Your task to perform on an android device: Turn off the flashlight Image 0: 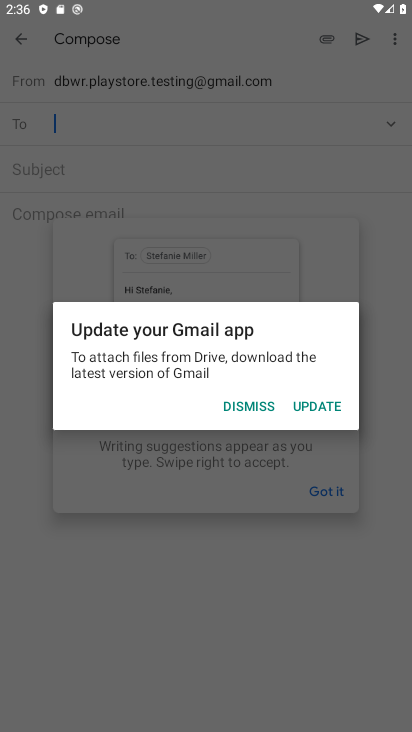
Step 0: press home button
Your task to perform on an android device: Turn off the flashlight Image 1: 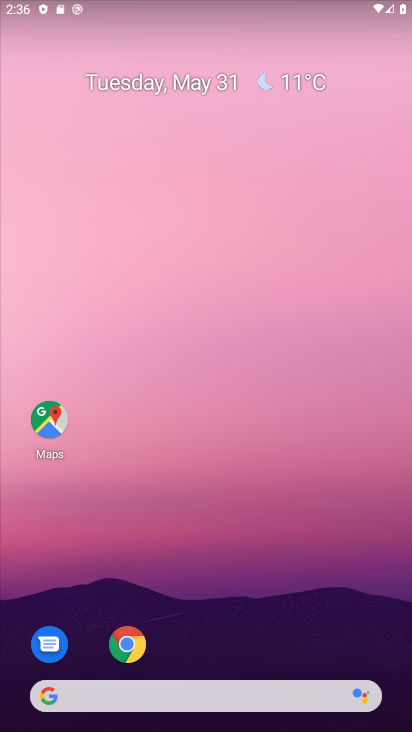
Step 1: drag from (199, 625) to (191, 250)
Your task to perform on an android device: Turn off the flashlight Image 2: 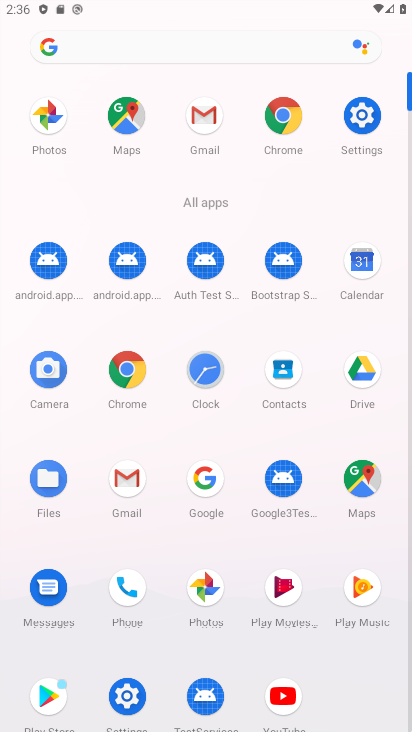
Step 2: click (360, 122)
Your task to perform on an android device: Turn off the flashlight Image 3: 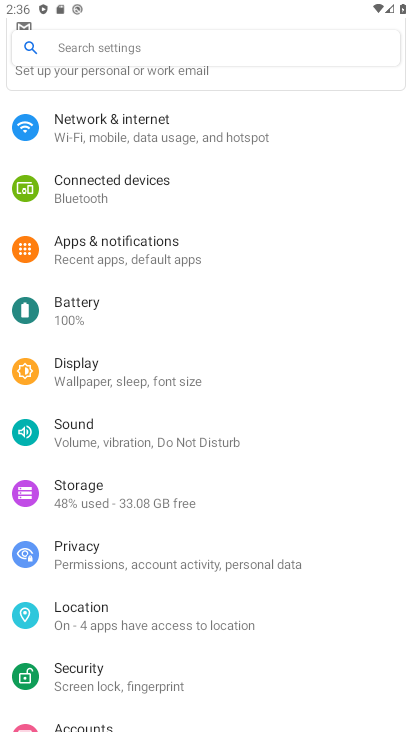
Step 3: click (132, 383)
Your task to perform on an android device: Turn off the flashlight Image 4: 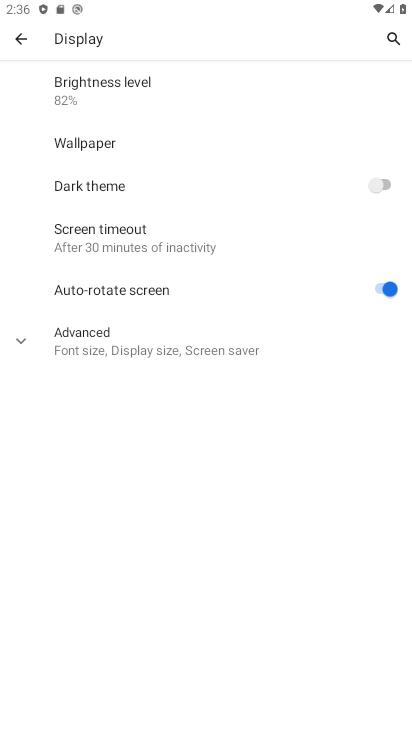
Step 4: click (176, 339)
Your task to perform on an android device: Turn off the flashlight Image 5: 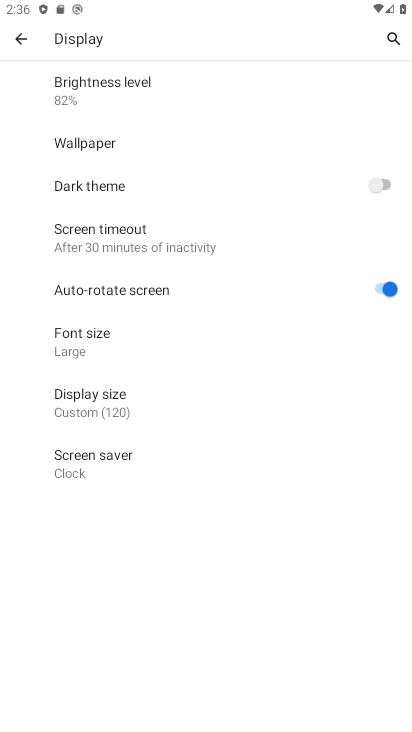
Step 5: task complete